Your task to perform on an android device: turn pop-ups off in chrome Image 0: 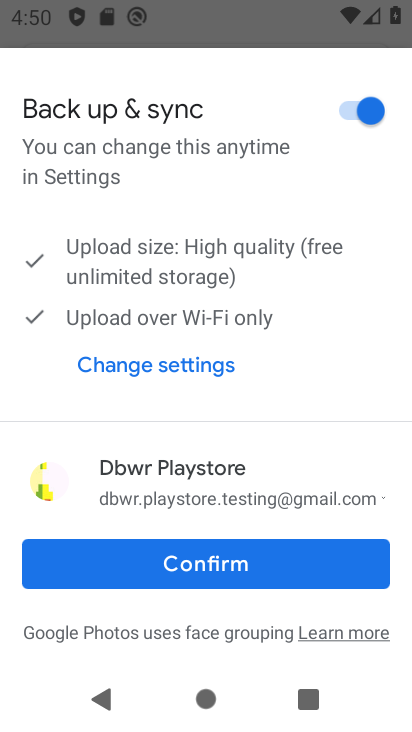
Step 0: press home button
Your task to perform on an android device: turn pop-ups off in chrome Image 1: 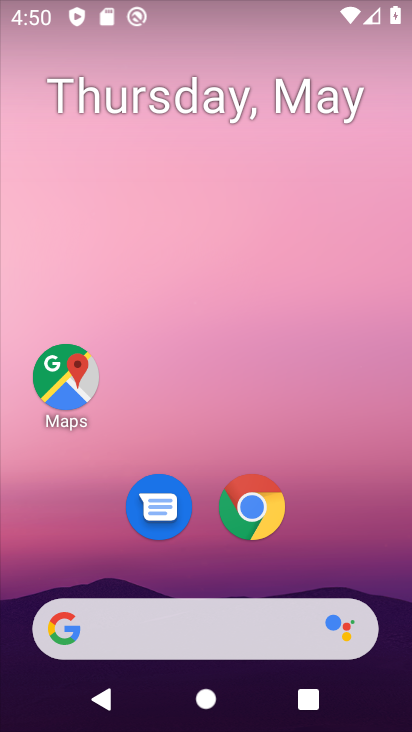
Step 1: drag from (229, 376) to (262, 83)
Your task to perform on an android device: turn pop-ups off in chrome Image 2: 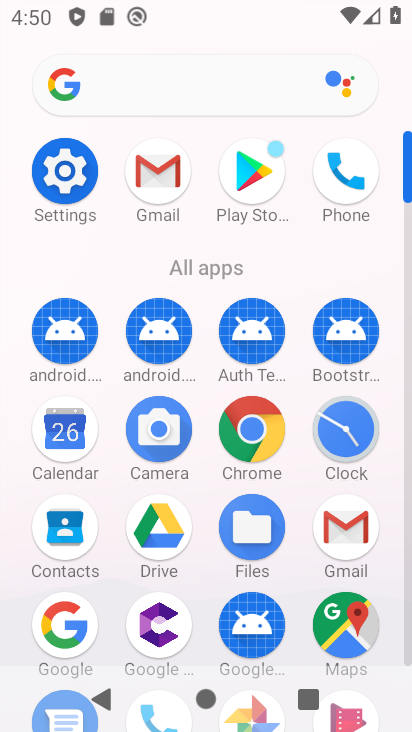
Step 2: click (260, 428)
Your task to perform on an android device: turn pop-ups off in chrome Image 3: 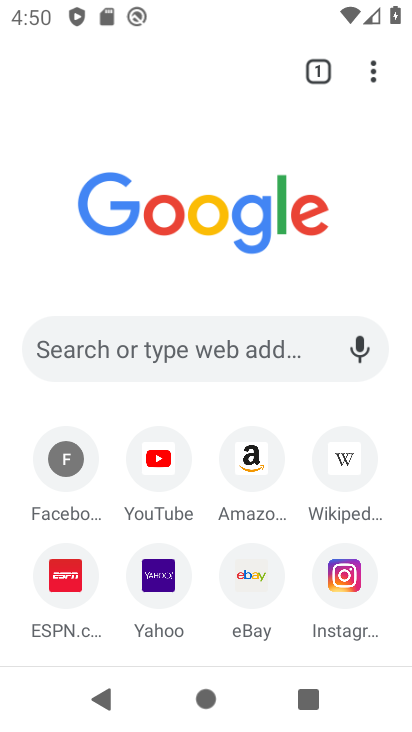
Step 3: drag from (380, 69) to (154, 499)
Your task to perform on an android device: turn pop-ups off in chrome Image 4: 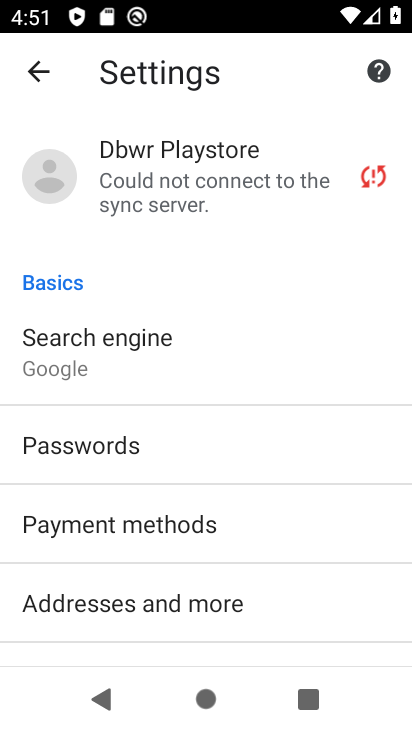
Step 4: drag from (200, 570) to (301, 14)
Your task to perform on an android device: turn pop-ups off in chrome Image 5: 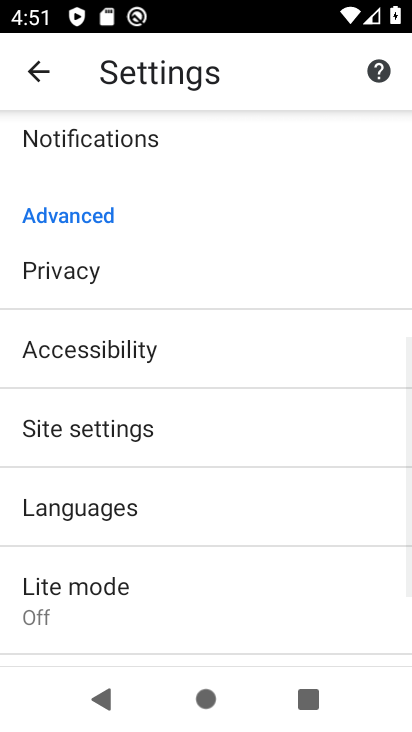
Step 5: click (129, 433)
Your task to perform on an android device: turn pop-ups off in chrome Image 6: 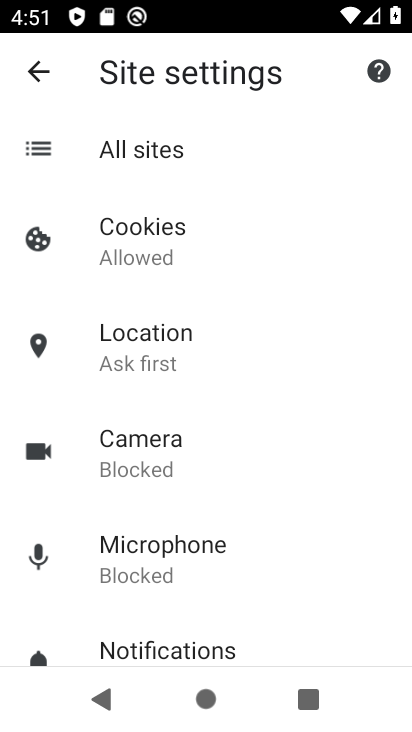
Step 6: drag from (230, 591) to (293, 261)
Your task to perform on an android device: turn pop-ups off in chrome Image 7: 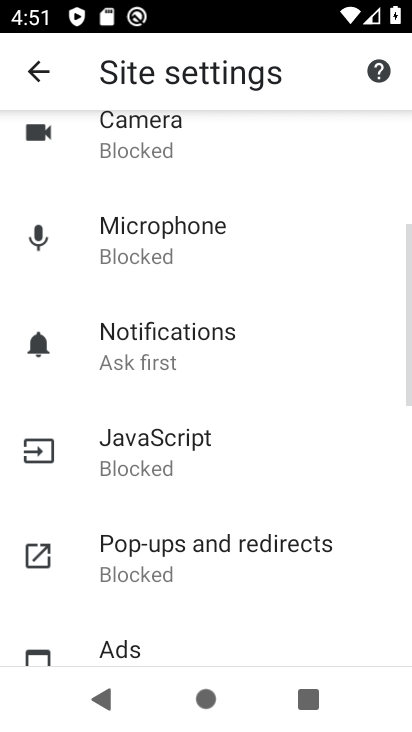
Step 7: click (175, 568)
Your task to perform on an android device: turn pop-ups off in chrome Image 8: 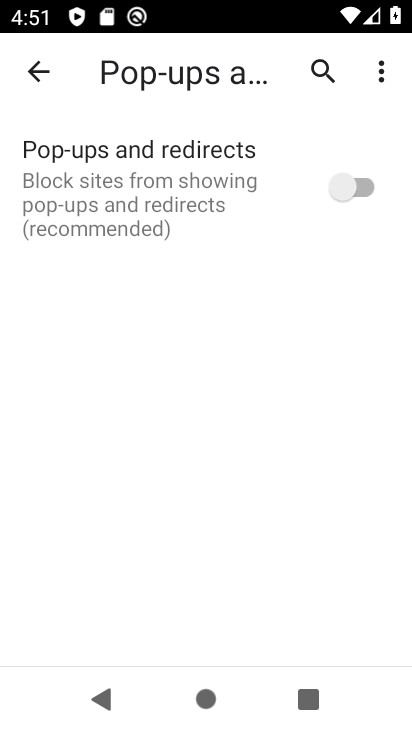
Step 8: task complete